Your task to perform on an android device: turn on wifi Image 0: 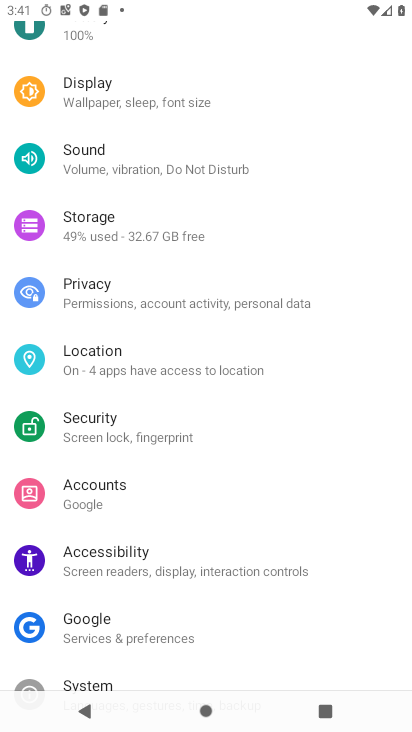
Step 0: drag from (165, 207) to (158, 565)
Your task to perform on an android device: turn on wifi Image 1: 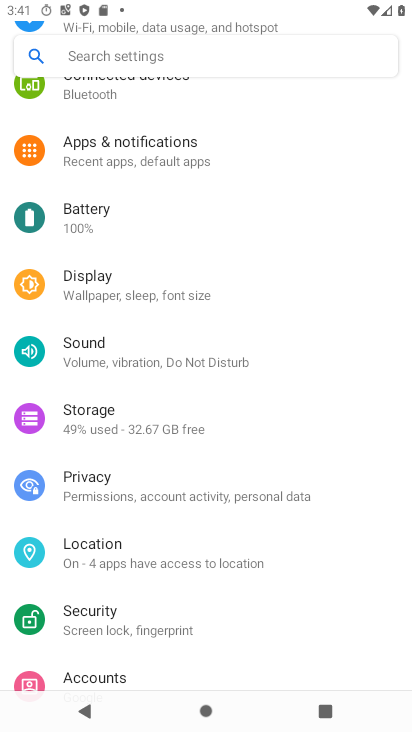
Step 1: drag from (213, 179) to (188, 726)
Your task to perform on an android device: turn on wifi Image 2: 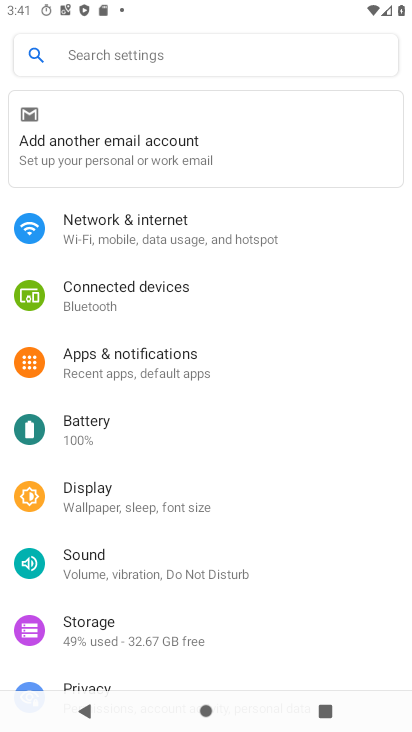
Step 2: click (165, 222)
Your task to perform on an android device: turn on wifi Image 3: 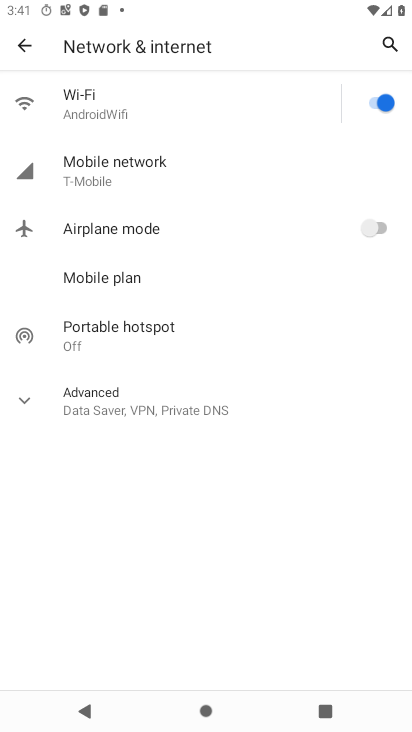
Step 3: task complete